Your task to perform on an android device: Do I have any events this weekend? Image 0: 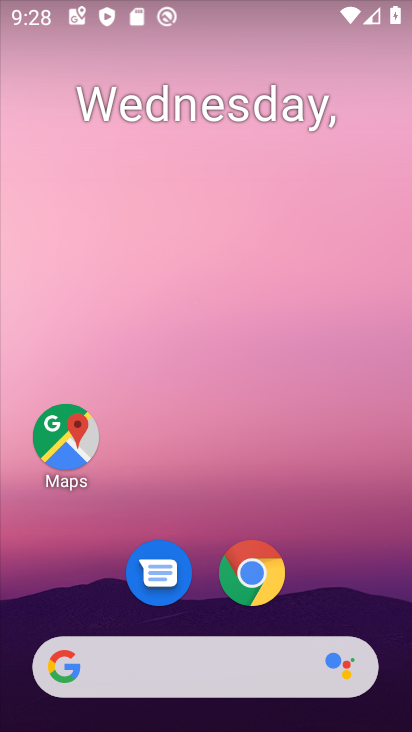
Step 0: drag from (347, 498) to (328, 208)
Your task to perform on an android device: Do I have any events this weekend? Image 1: 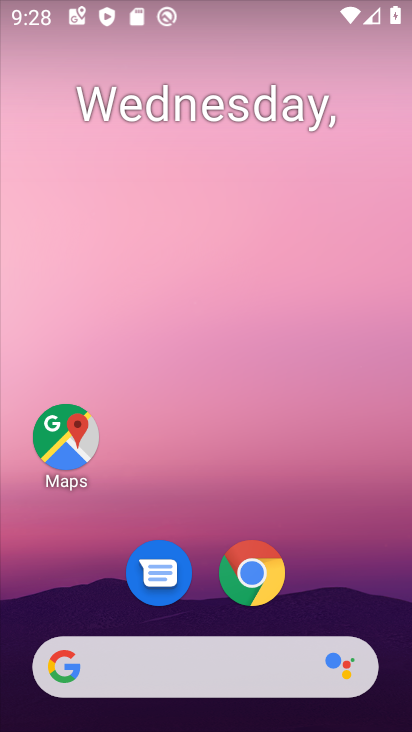
Step 1: drag from (385, 424) to (371, 189)
Your task to perform on an android device: Do I have any events this weekend? Image 2: 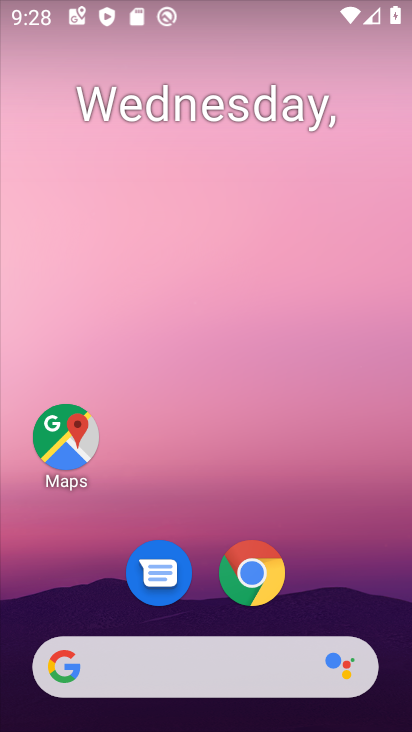
Step 2: drag from (397, 610) to (369, 119)
Your task to perform on an android device: Do I have any events this weekend? Image 3: 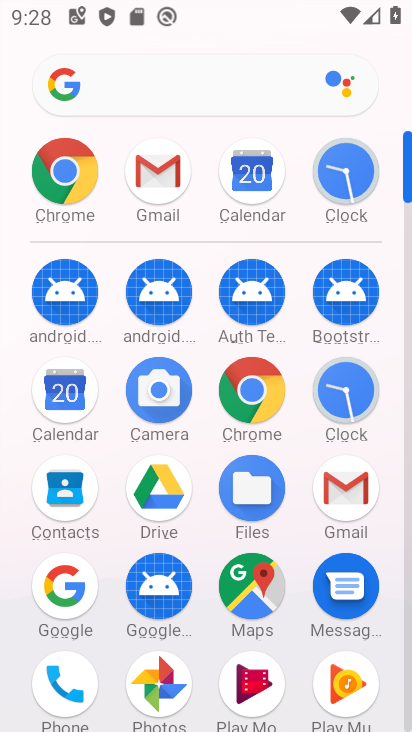
Step 3: click (58, 401)
Your task to perform on an android device: Do I have any events this weekend? Image 4: 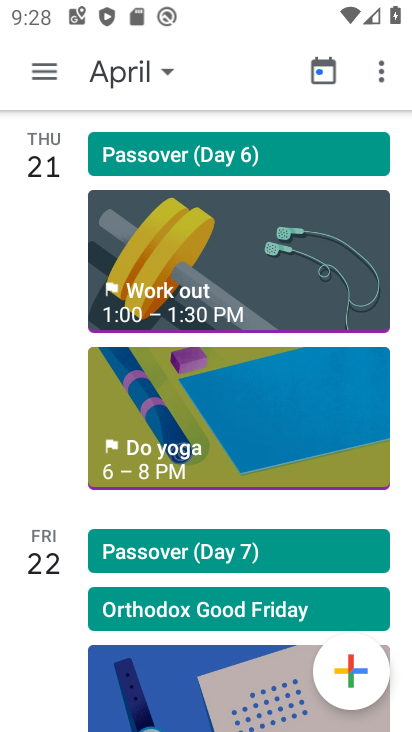
Step 4: click (45, 67)
Your task to perform on an android device: Do I have any events this weekend? Image 5: 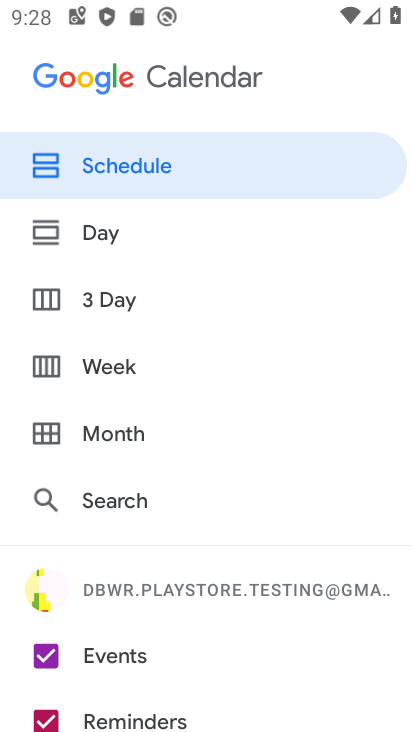
Step 5: click (125, 370)
Your task to perform on an android device: Do I have any events this weekend? Image 6: 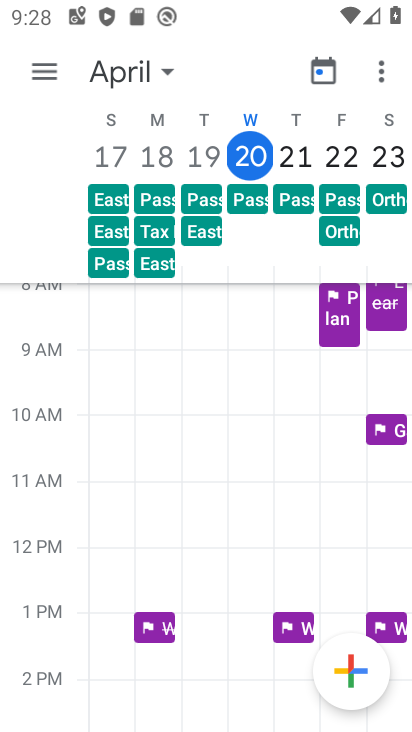
Step 6: task complete